Your task to perform on an android device: change the clock style Image 0: 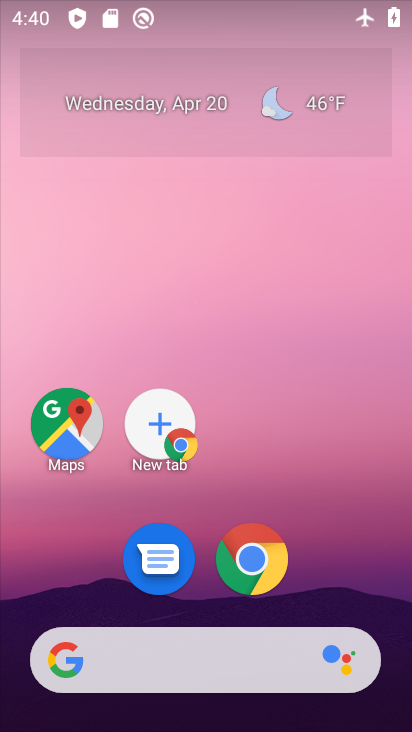
Step 0: click (282, 571)
Your task to perform on an android device: change the clock style Image 1: 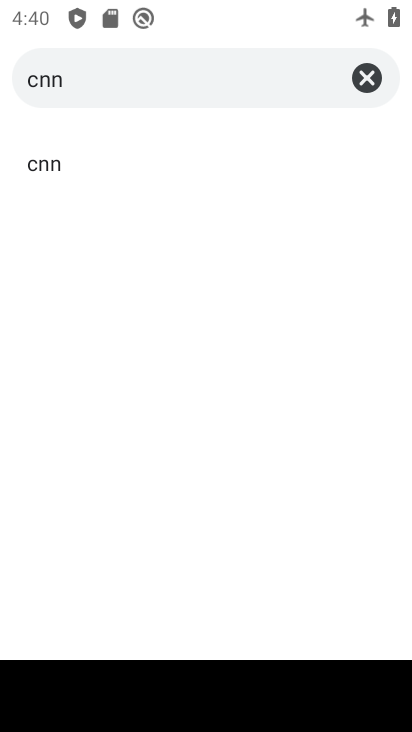
Step 1: click (359, 88)
Your task to perform on an android device: change the clock style Image 2: 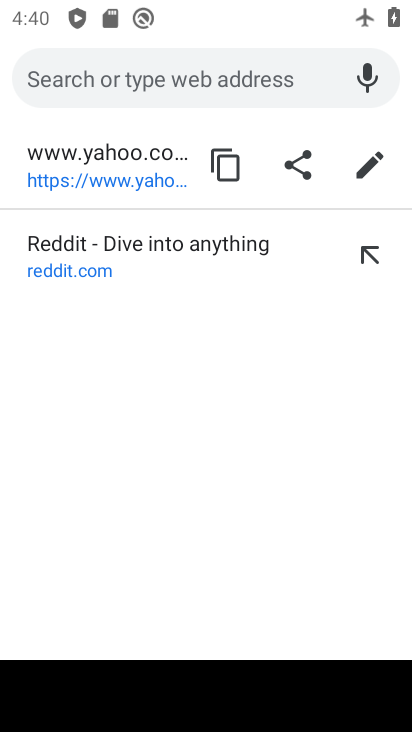
Step 2: type "wikipedia"
Your task to perform on an android device: change the clock style Image 3: 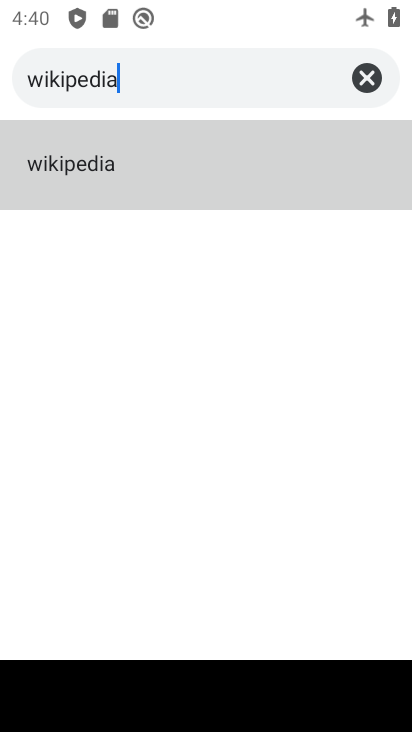
Step 3: task complete